Your task to perform on an android device: Open the Play Movies app and select the watchlist tab. Image 0: 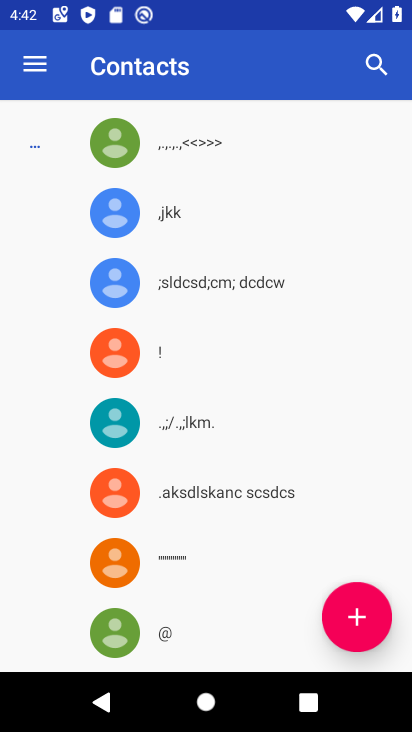
Step 0: press home button
Your task to perform on an android device: Open the Play Movies app and select the watchlist tab. Image 1: 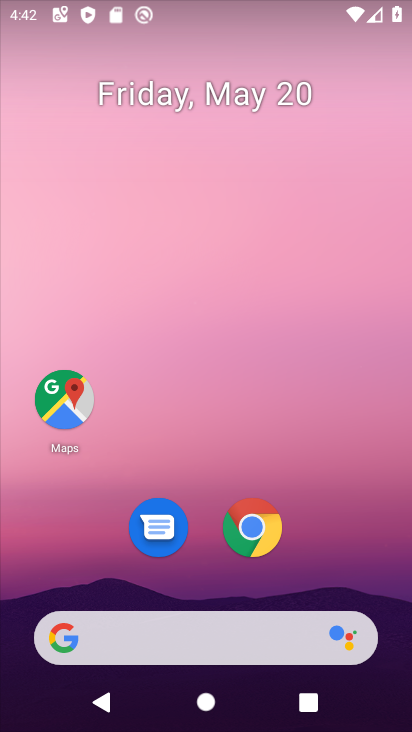
Step 1: drag from (178, 621) to (227, 104)
Your task to perform on an android device: Open the Play Movies app and select the watchlist tab. Image 2: 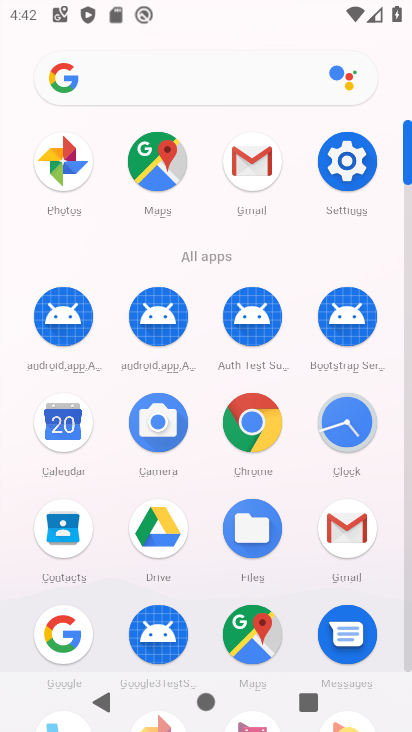
Step 2: drag from (211, 614) to (209, 305)
Your task to perform on an android device: Open the Play Movies app and select the watchlist tab. Image 3: 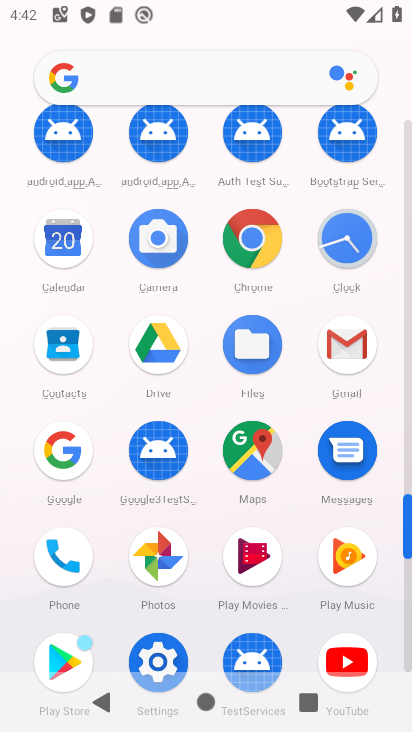
Step 3: click (241, 559)
Your task to perform on an android device: Open the Play Movies app and select the watchlist tab. Image 4: 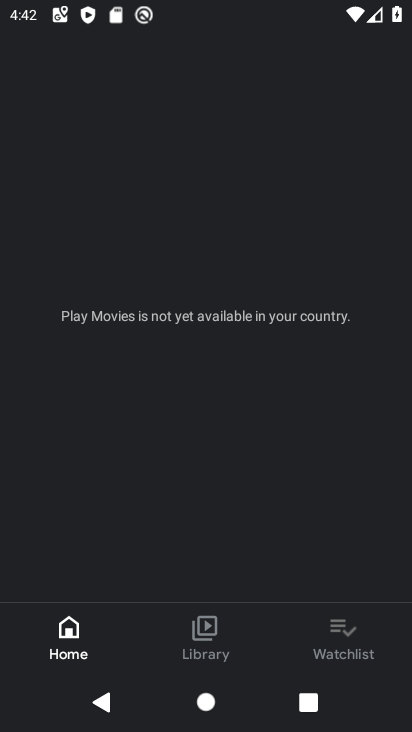
Step 4: click (349, 644)
Your task to perform on an android device: Open the Play Movies app and select the watchlist tab. Image 5: 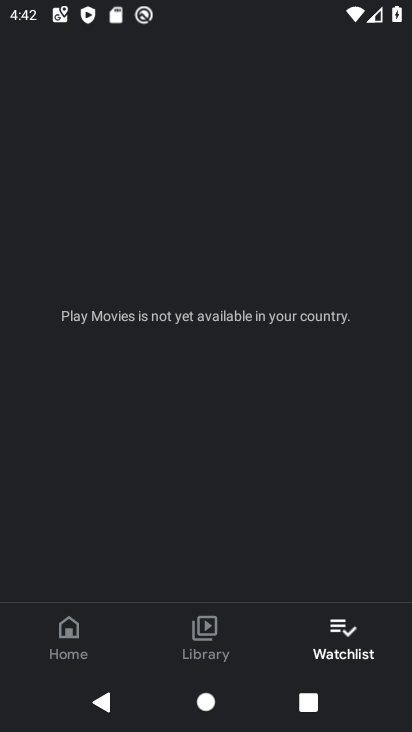
Step 5: task complete